Your task to perform on an android device: open chrome privacy settings Image 0: 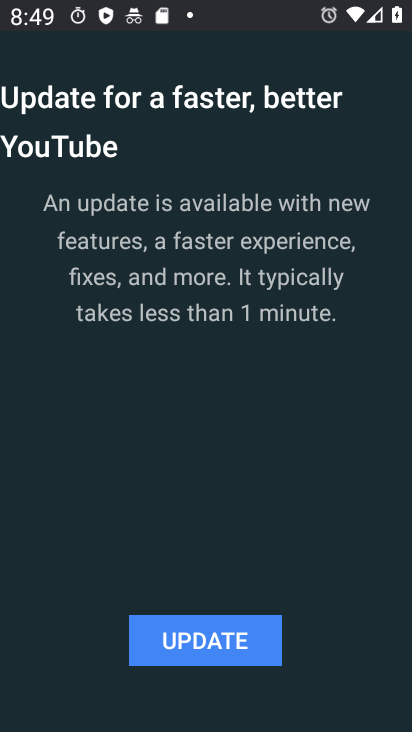
Step 0: drag from (251, 618) to (315, 391)
Your task to perform on an android device: open chrome privacy settings Image 1: 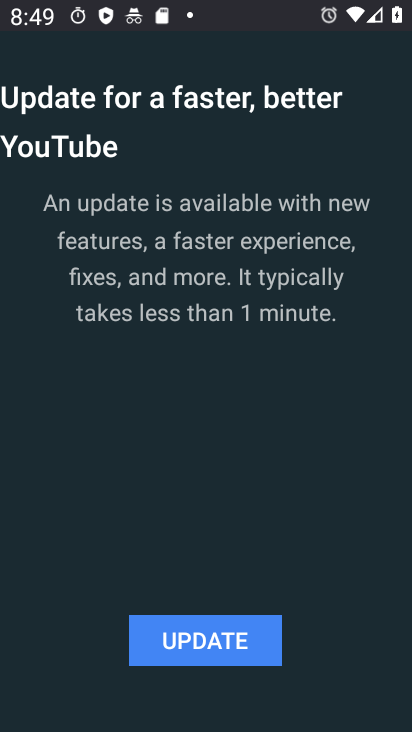
Step 1: click (226, 646)
Your task to perform on an android device: open chrome privacy settings Image 2: 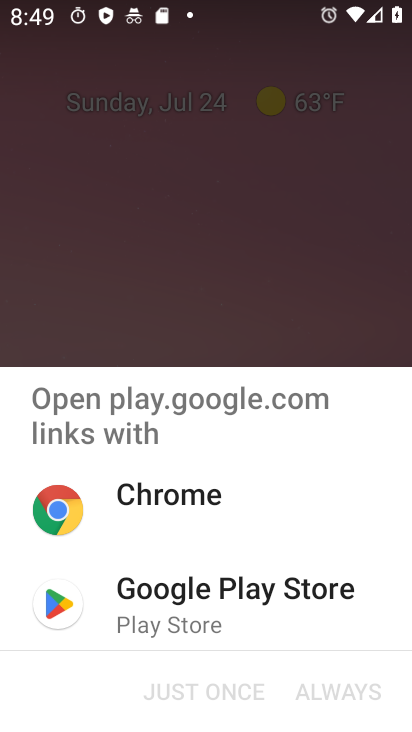
Step 2: click (189, 594)
Your task to perform on an android device: open chrome privacy settings Image 3: 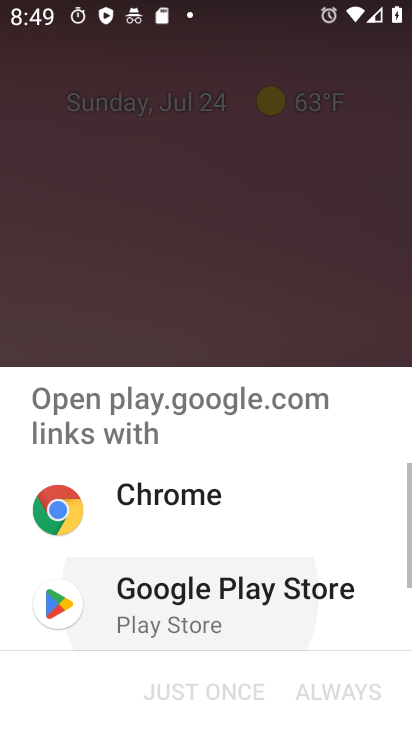
Step 3: drag from (153, 585) to (239, 680)
Your task to perform on an android device: open chrome privacy settings Image 4: 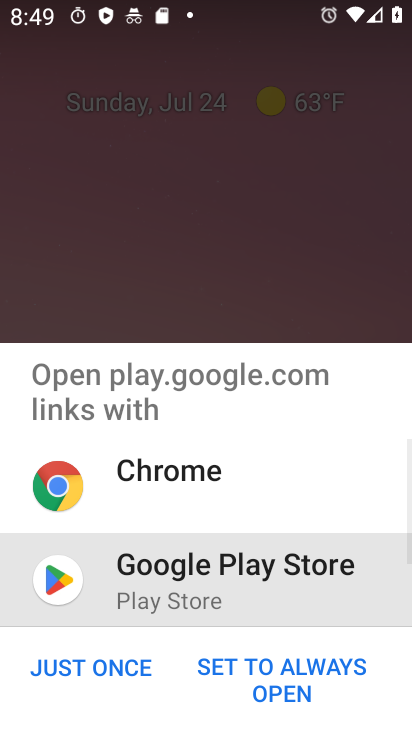
Step 4: click (97, 658)
Your task to perform on an android device: open chrome privacy settings Image 5: 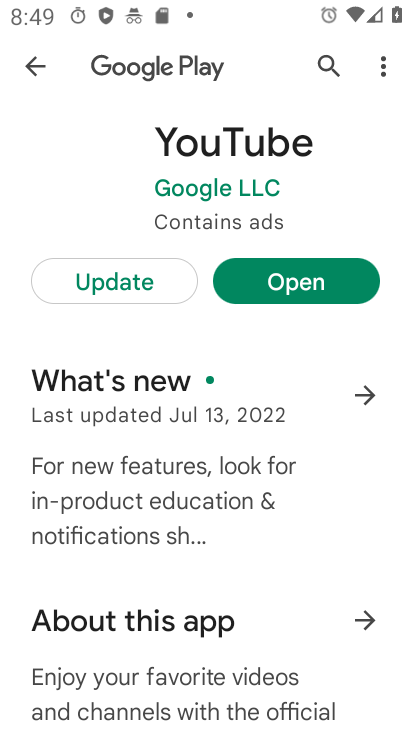
Step 5: press home button
Your task to perform on an android device: open chrome privacy settings Image 6: 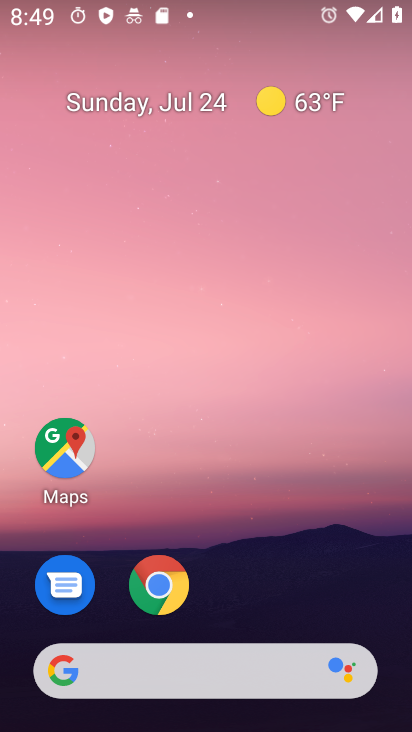
Step 6: drag from (238, 530) to (224, 250)
Your task to perform on an android device: open chrome privacy settings Image 7: 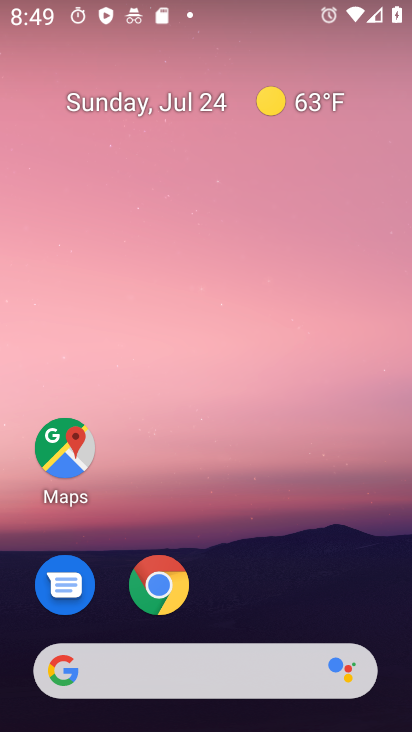
Step 7: drag from (269, 471) to (280, 75)
Your task to perform on an android device: open chrome privacy settings Image 8: 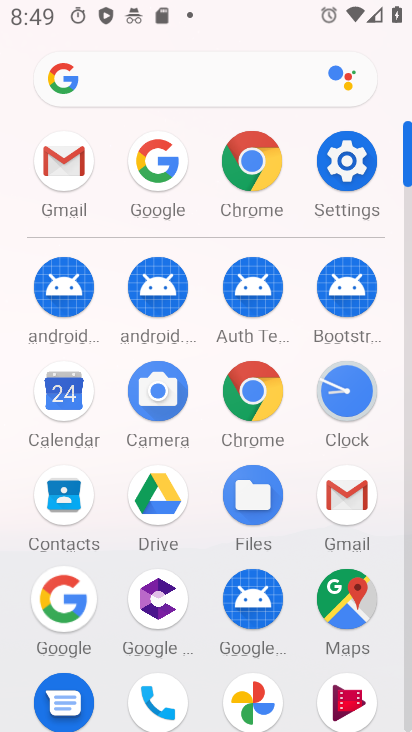
Step 8: click (260, 174)
Your task to perform on an android device: open chrome privacy settings Image 9: 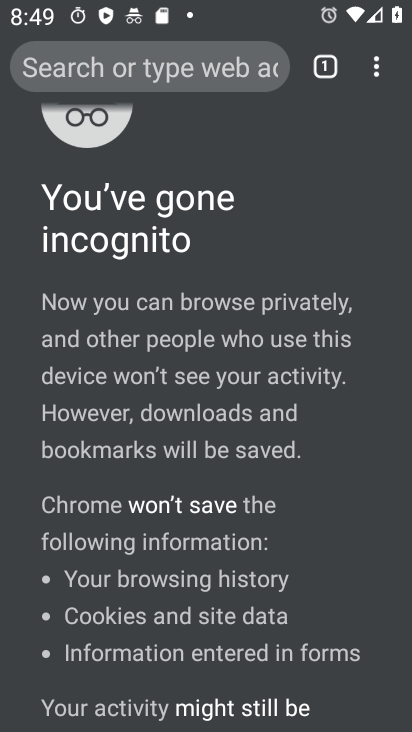
Step 9: task complete